Your task to perform on an android device: Open my contact list Image 0: 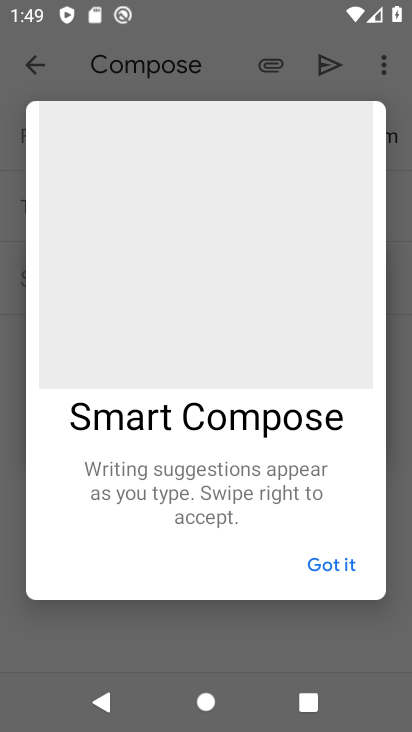
Step 0: press home button
Your task to perform on an android device: Open my contact list Image 1: 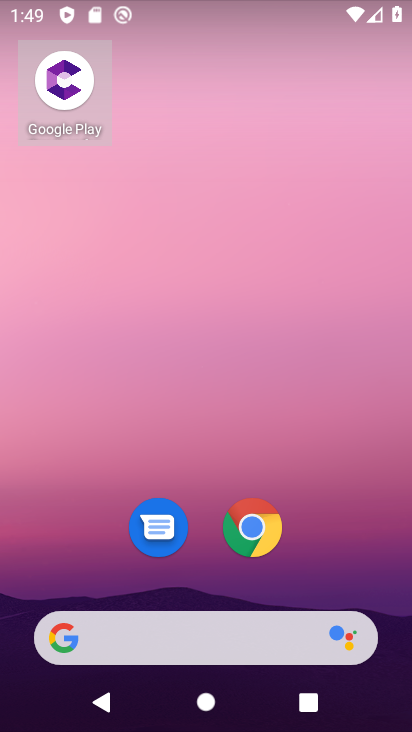
Step 1: drag from (205, 584) to (212, 42)
Your task to perform on an android device: Open my contact list Image 2: 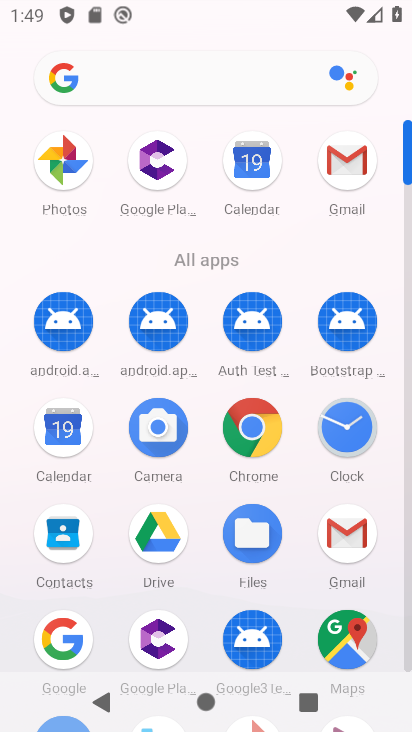
Step 2: click (65, 532)
Your task to perform on an android device: Open my contact list Image 3: 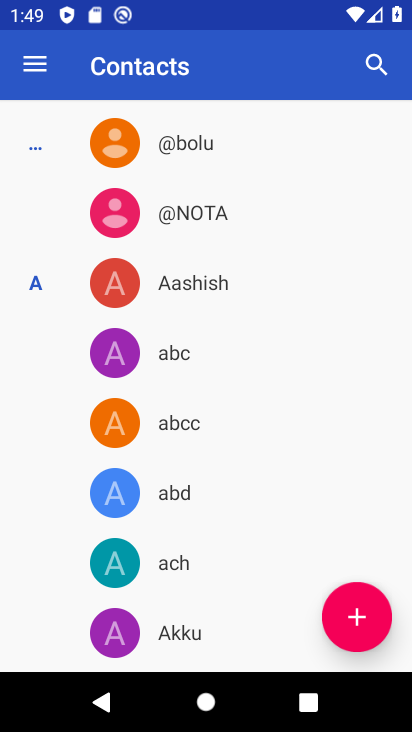
Step 3: task complete